Your task to perform on an android device: change the clock display to show seconds Image 0: 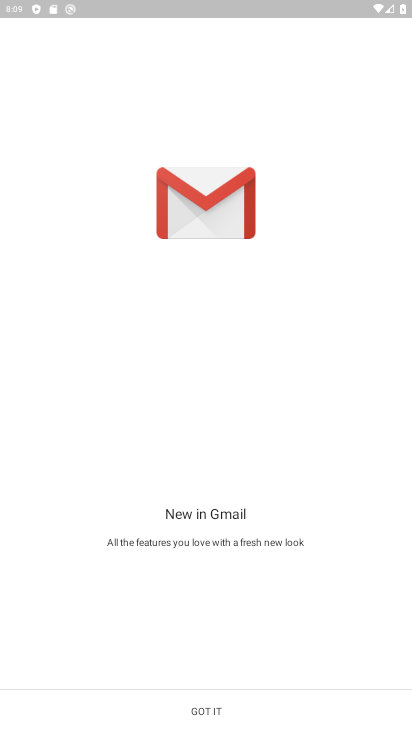
Step 0: press home button
Your task to perform on an android device: change the clock display to show seconds Image 1: 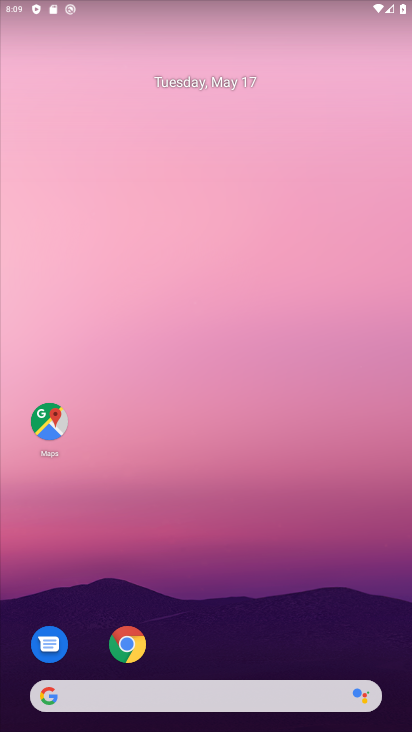
Step 1: drag from (248, 638) to (325, 53)
Your task to perform on an android device: change the clock display to show seconds Image 2: 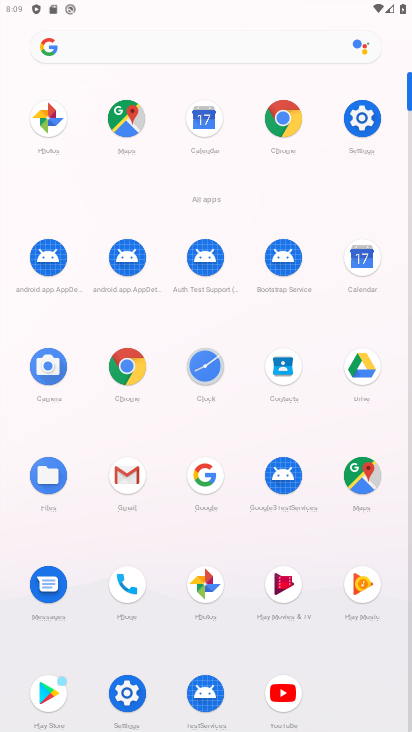
Step 2: click (197, 360)
Your task to perform on an android device: change the clock display to show seconds Image 3: 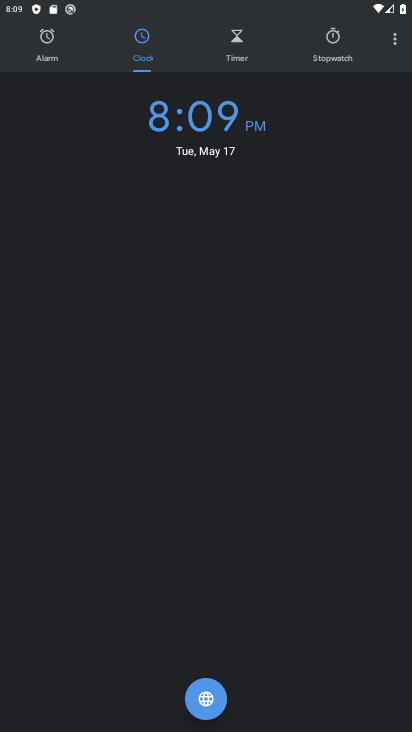
Step 3: click (393, 36)
Your task to perform on an android device: change the clock display to show seconds Image 4: 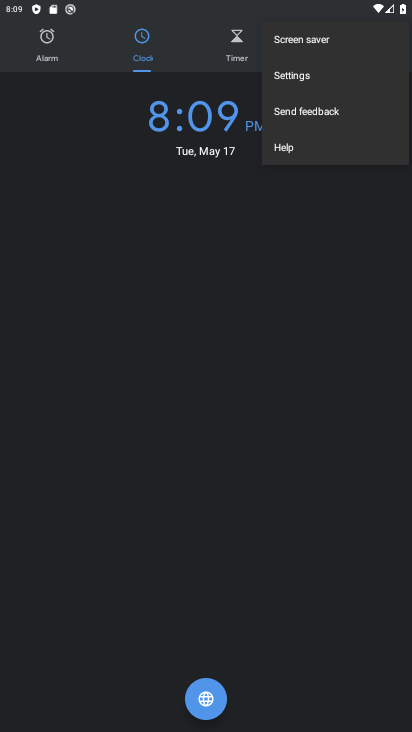
Step 4: click (285, 74)
Your task to perform on an android device: change the clock display to show seconds Image 5: 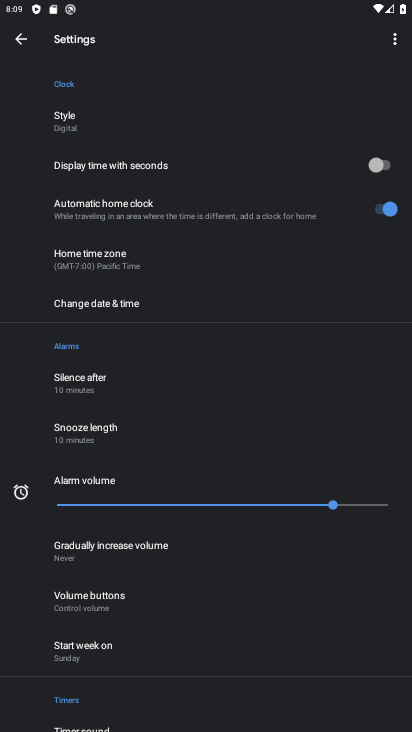
Step 5: click (376, 162)
Your task to perform on an android device: change the clock display to show seconds Image 6: 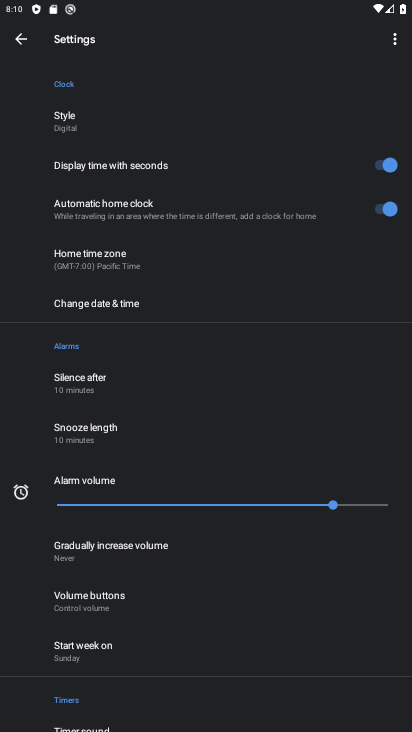
Step 6: task complete